Your task to perform on an android device: Open calendar and show me the fourth week of next month Image 0: 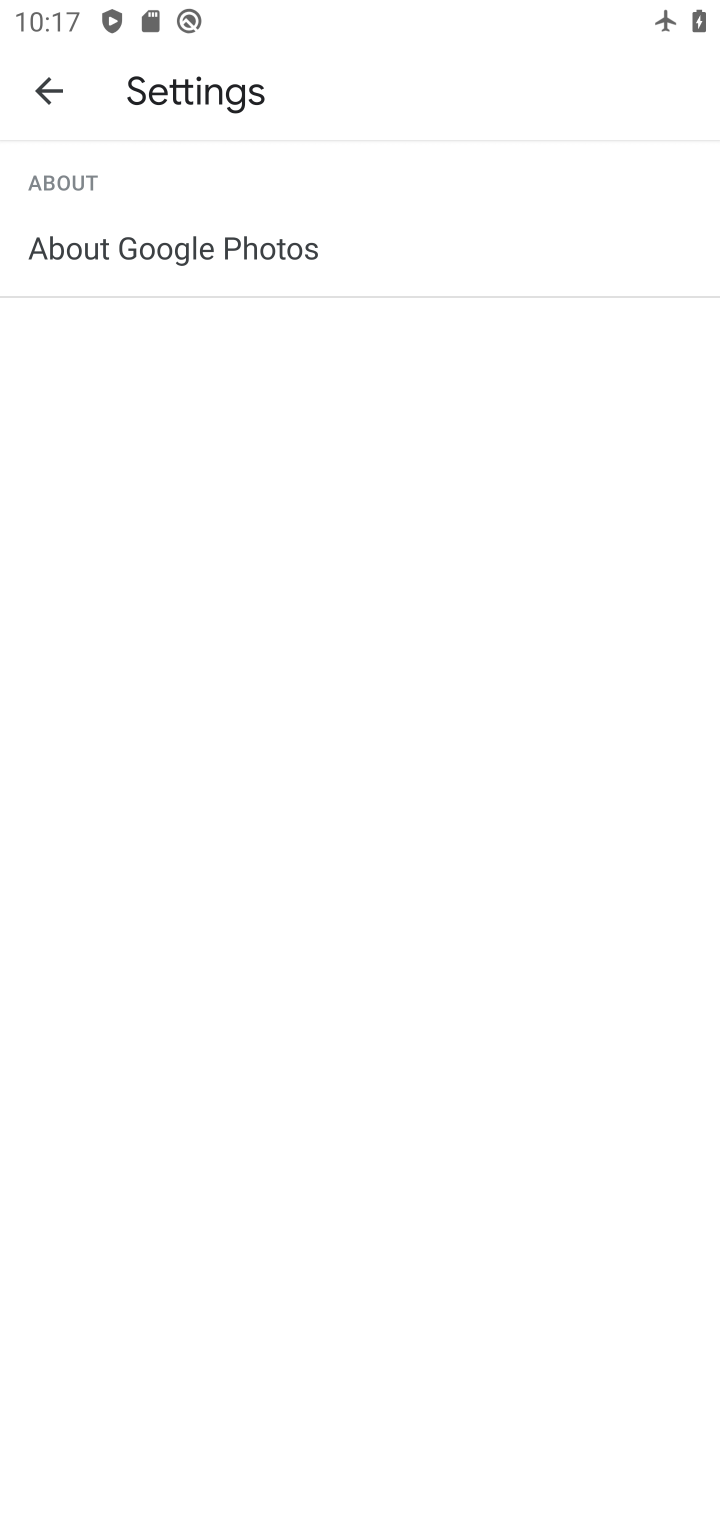
Step 0: press home button
Your task to perform on an android device: Open calendar and show me the fourth week of next month Image 1: 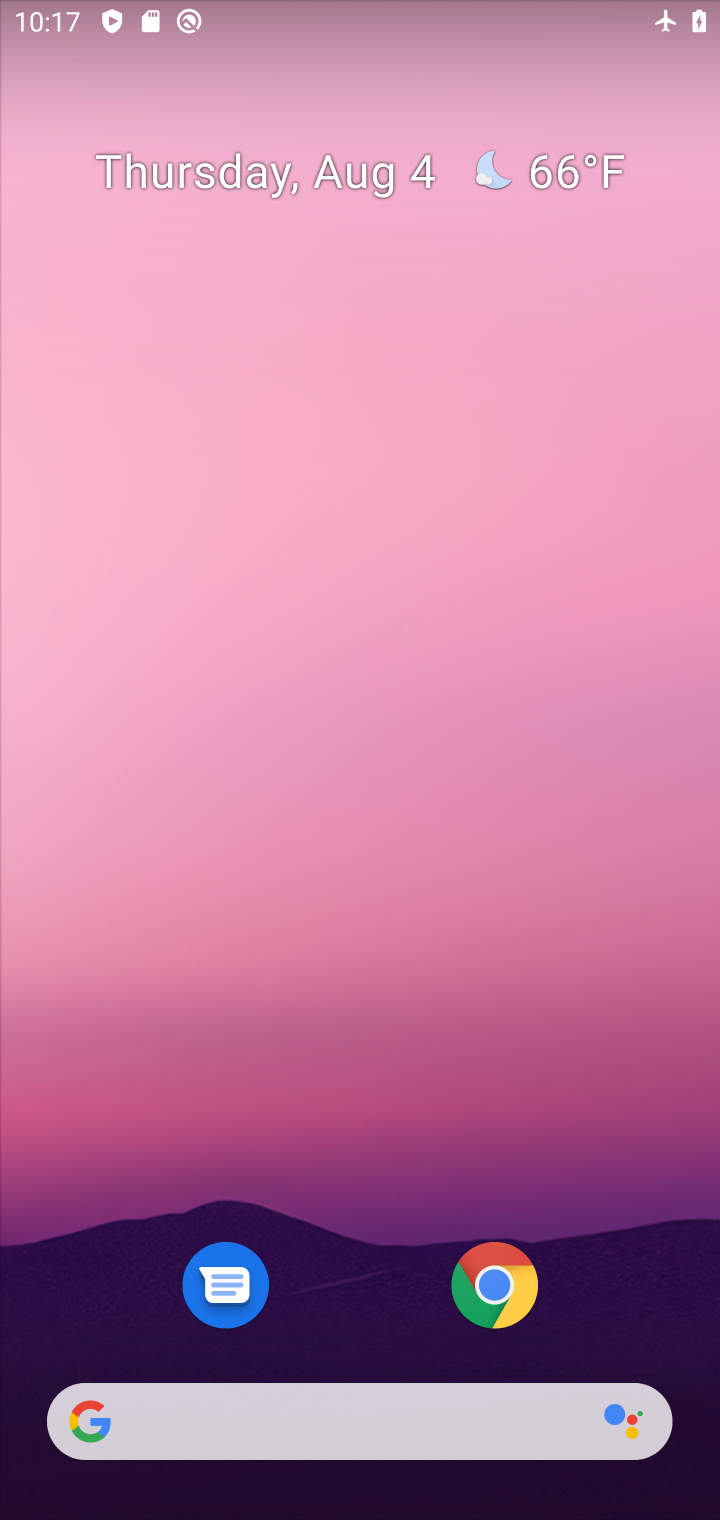
Step 1: drag from (341, 1276) to (434, 98)
Your task to perform on an android device: Open calendar and show me the fourth week of next month Image 2: 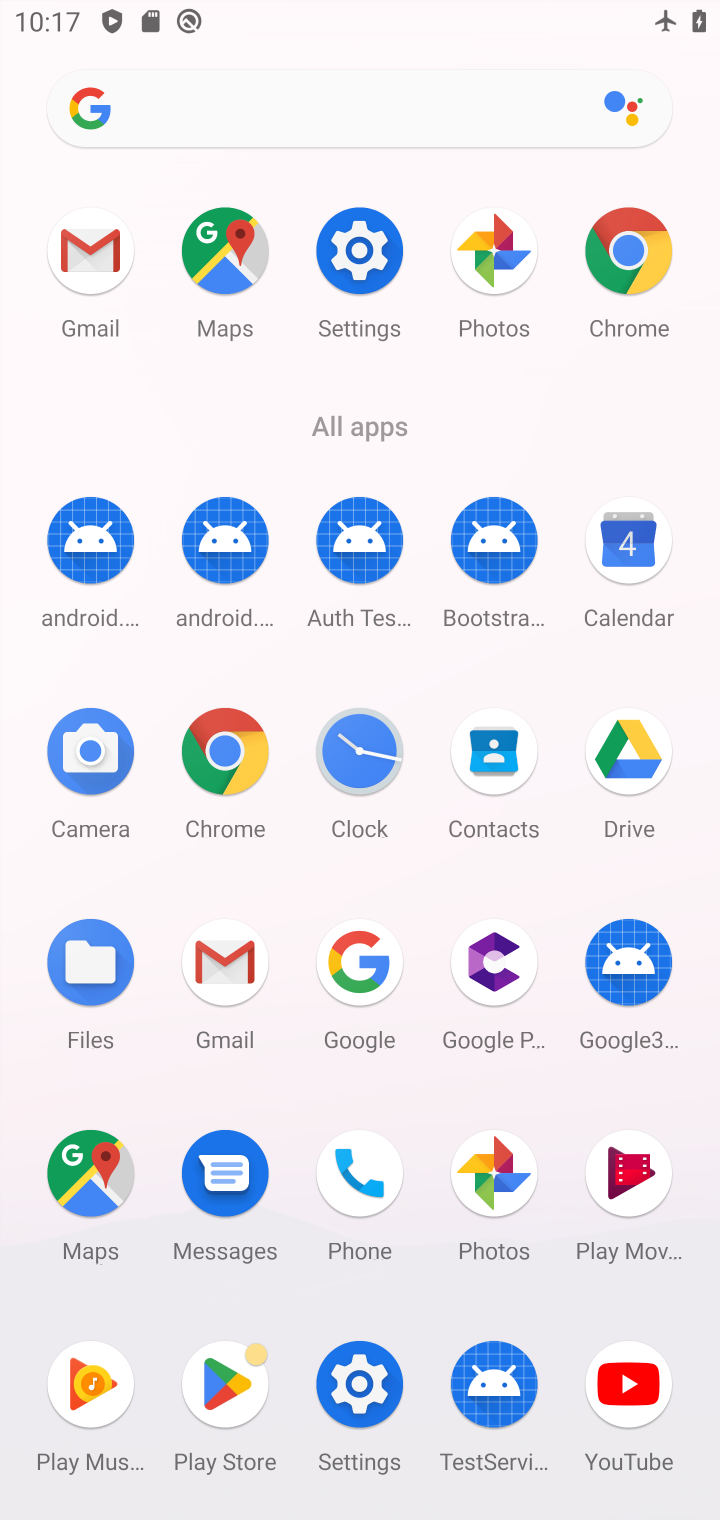
Step 2: click (636, 528)
Your task to perform on an android device: Open calendar and show me the fourth week of next month Image 3: 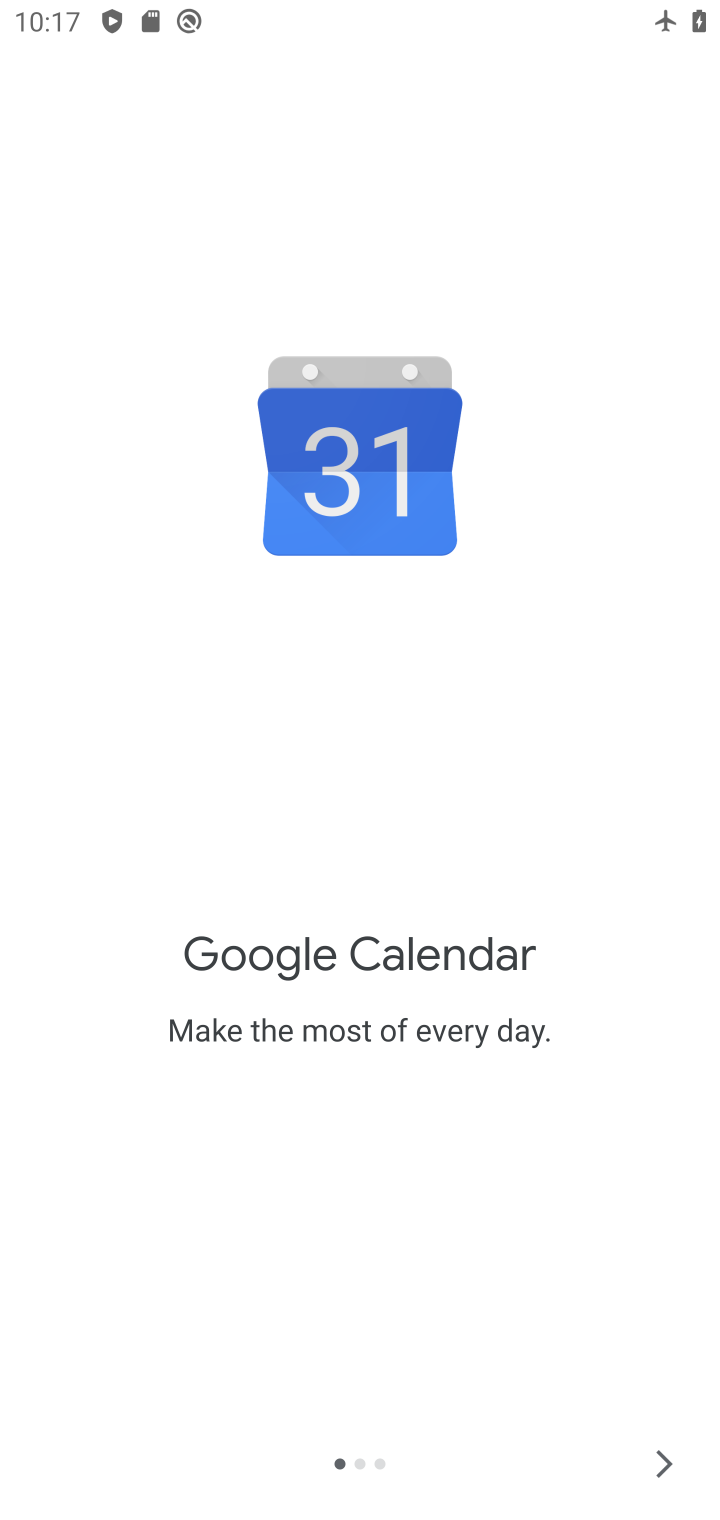
Step 3: click (660, 1478)
Your task to perform on an android device: Open calendar and show me the fourth week of next month Image 4: 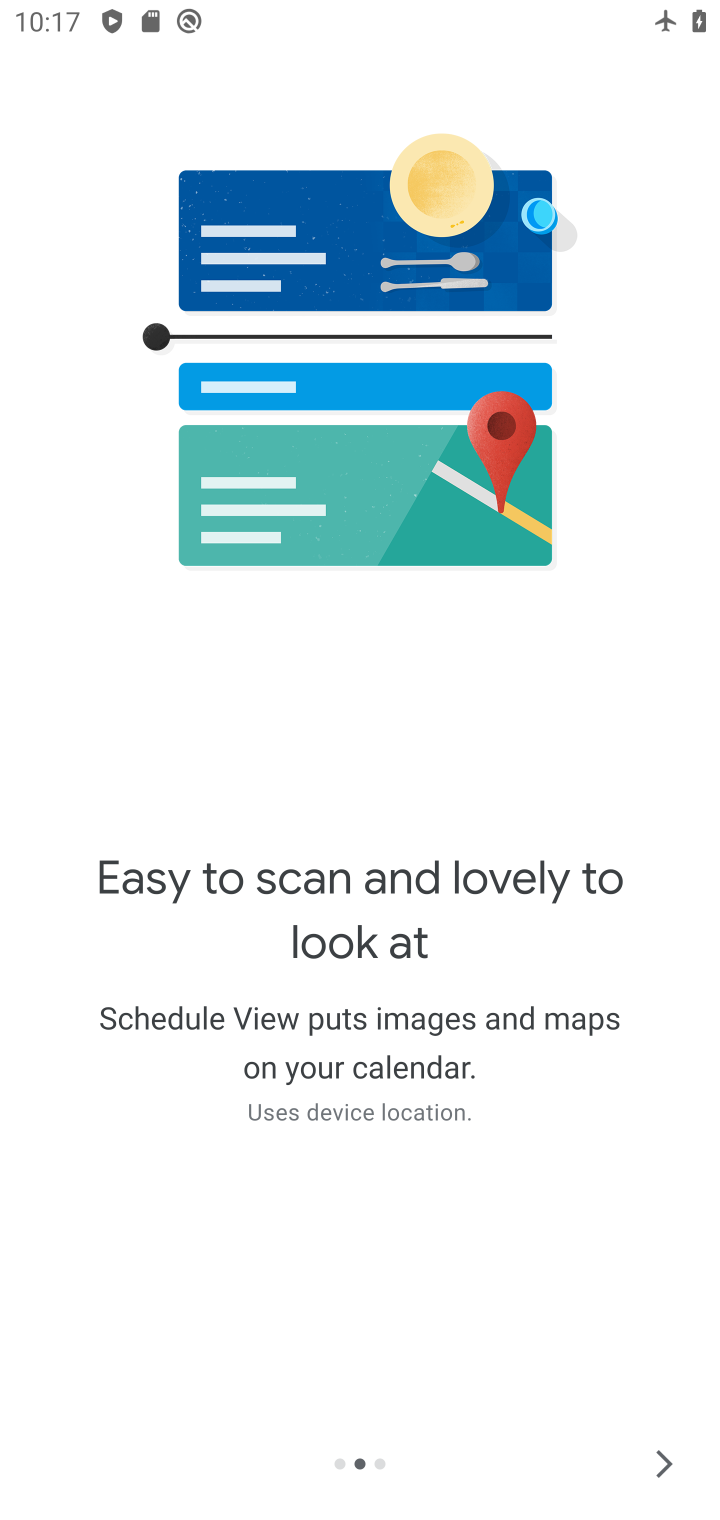
Step 4: click (660, 1478)
Your task to perform on an android device: Open calendar and show me the fourth week of next month Image 5: 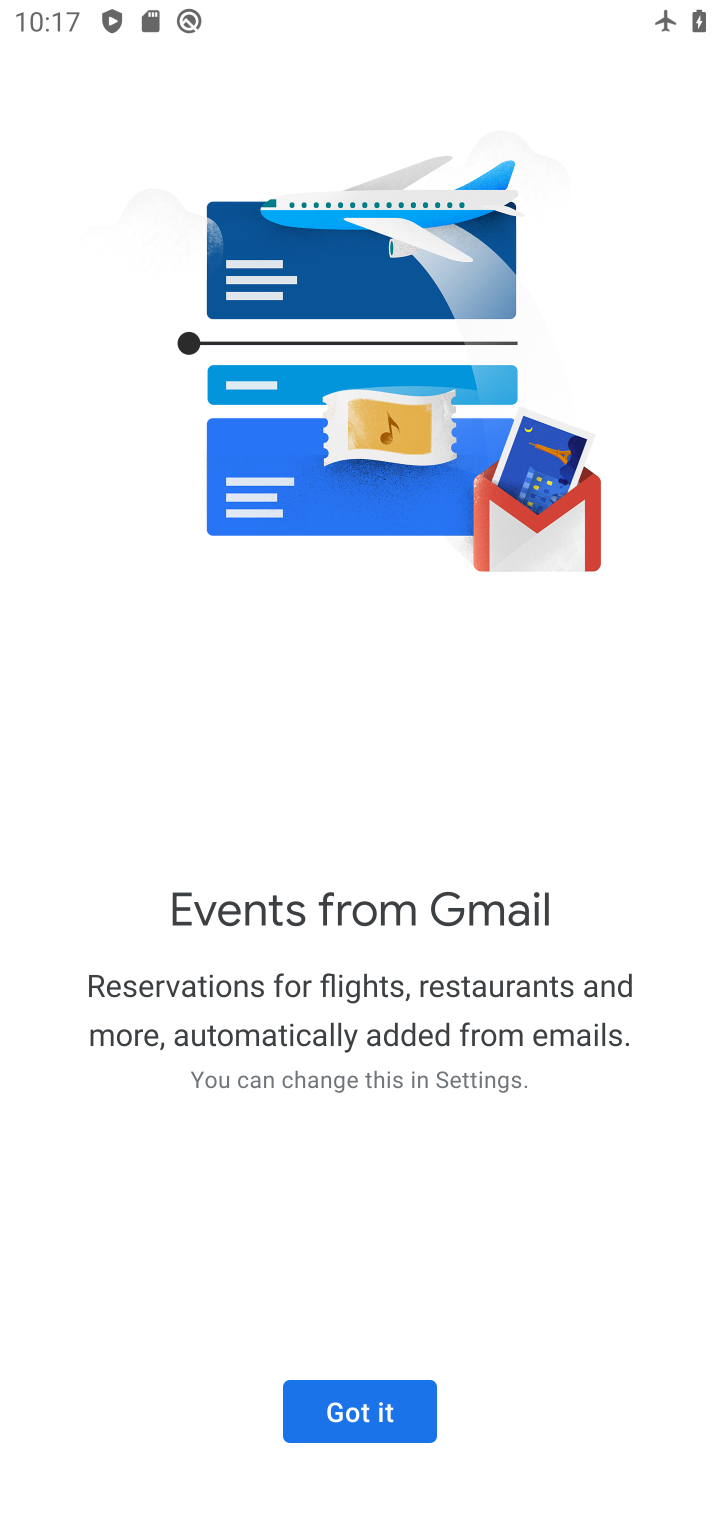
Step 5: click (354, 1388)
Your task to perform on an android device: Open calendar and show me the fourth week of next month Image 6: 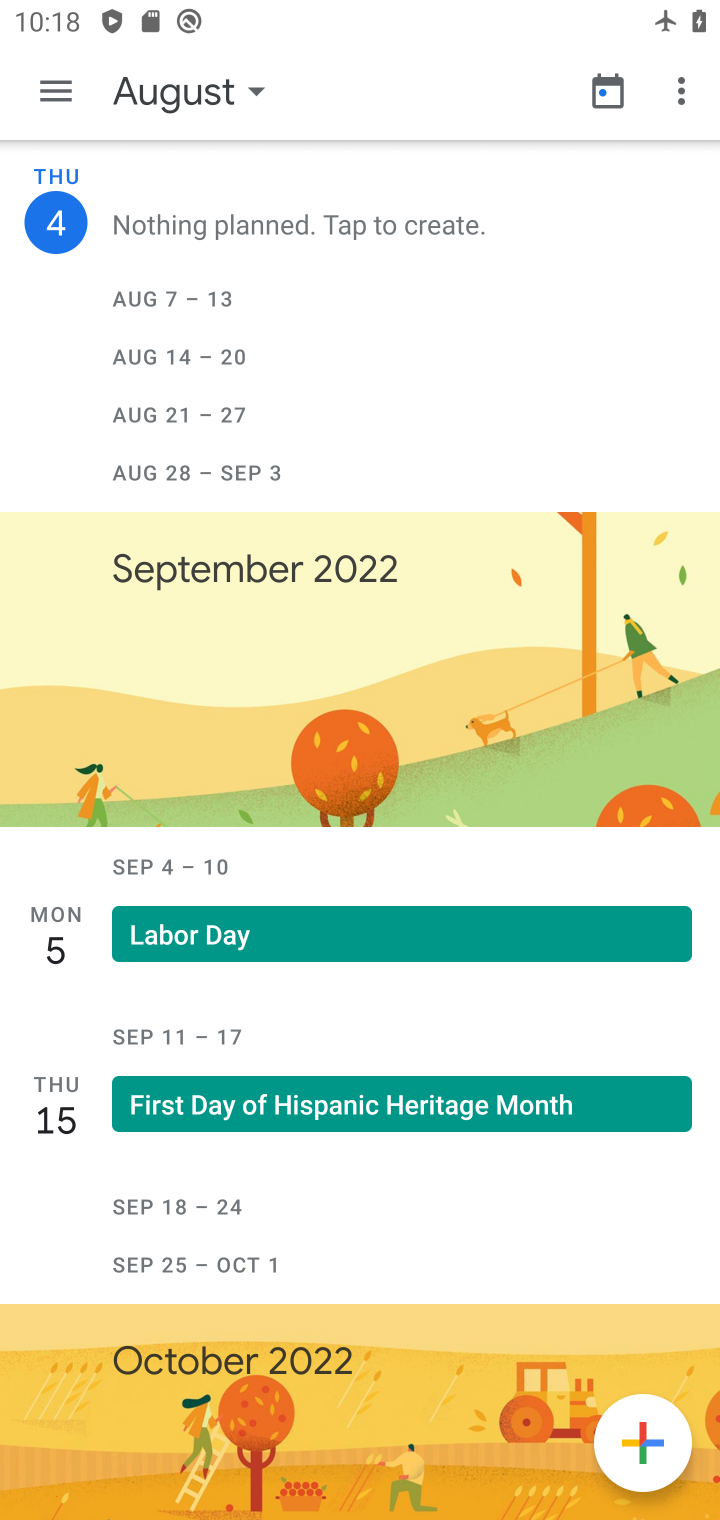
Step 6: press home button
Your task to perform on an android device: Open calendar and show me the fourth week of next month Image 7: 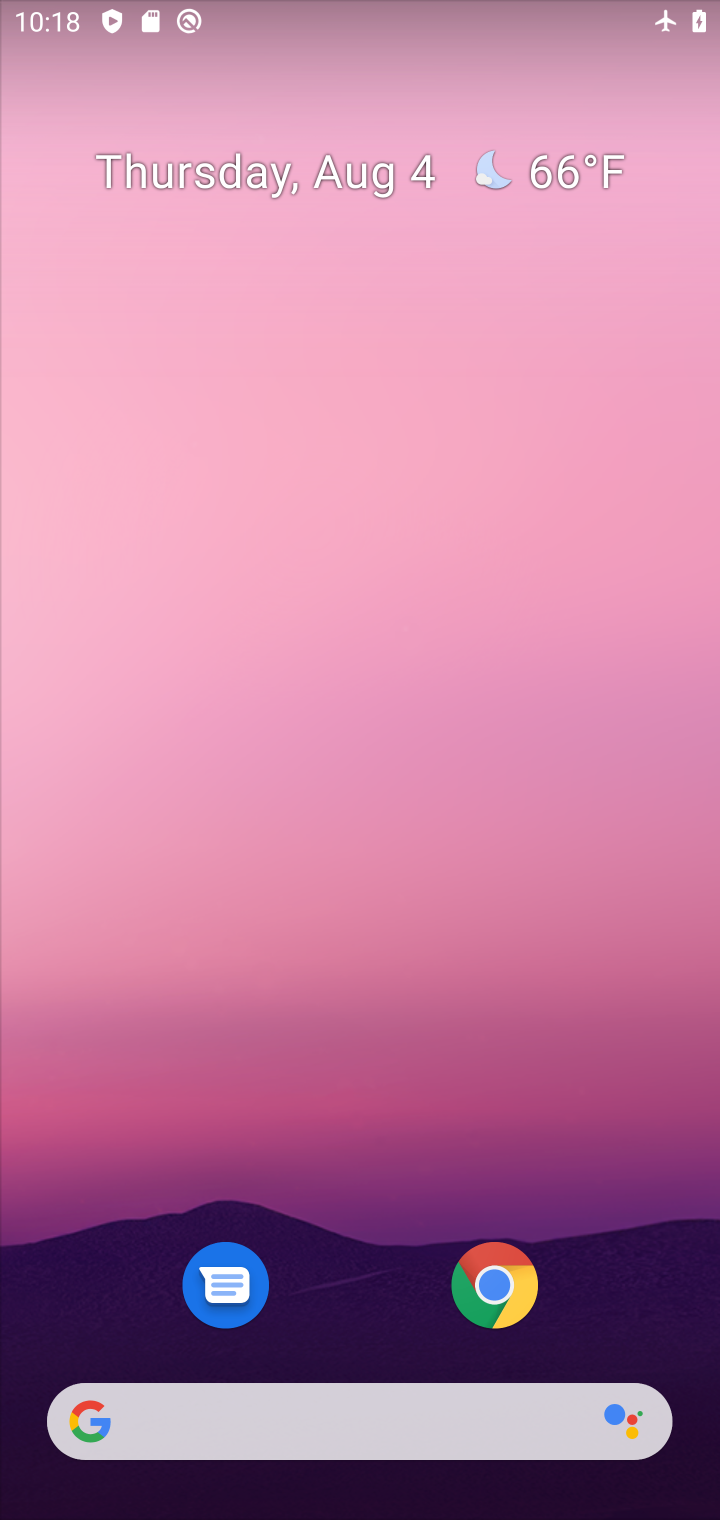
Step 7: drag from (326, 1329) to (290, 18)
Your task to perform on an android device: Open calendar and show me the fourth week of next month Image 8: 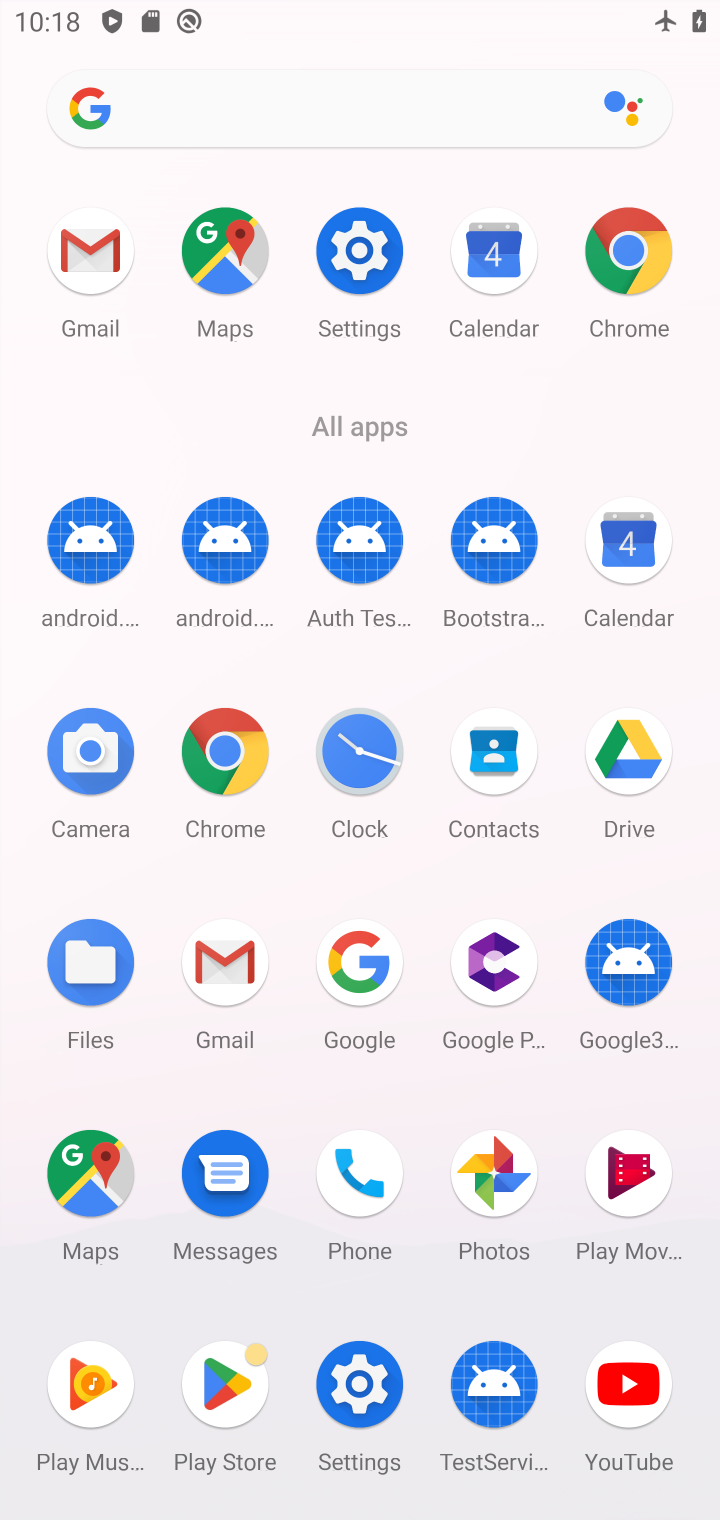
Step 8: drag from (427, 414) to (385, 27)
Your task to perform on an android device: Open calendar and show me the fourth week of next month Image 9: 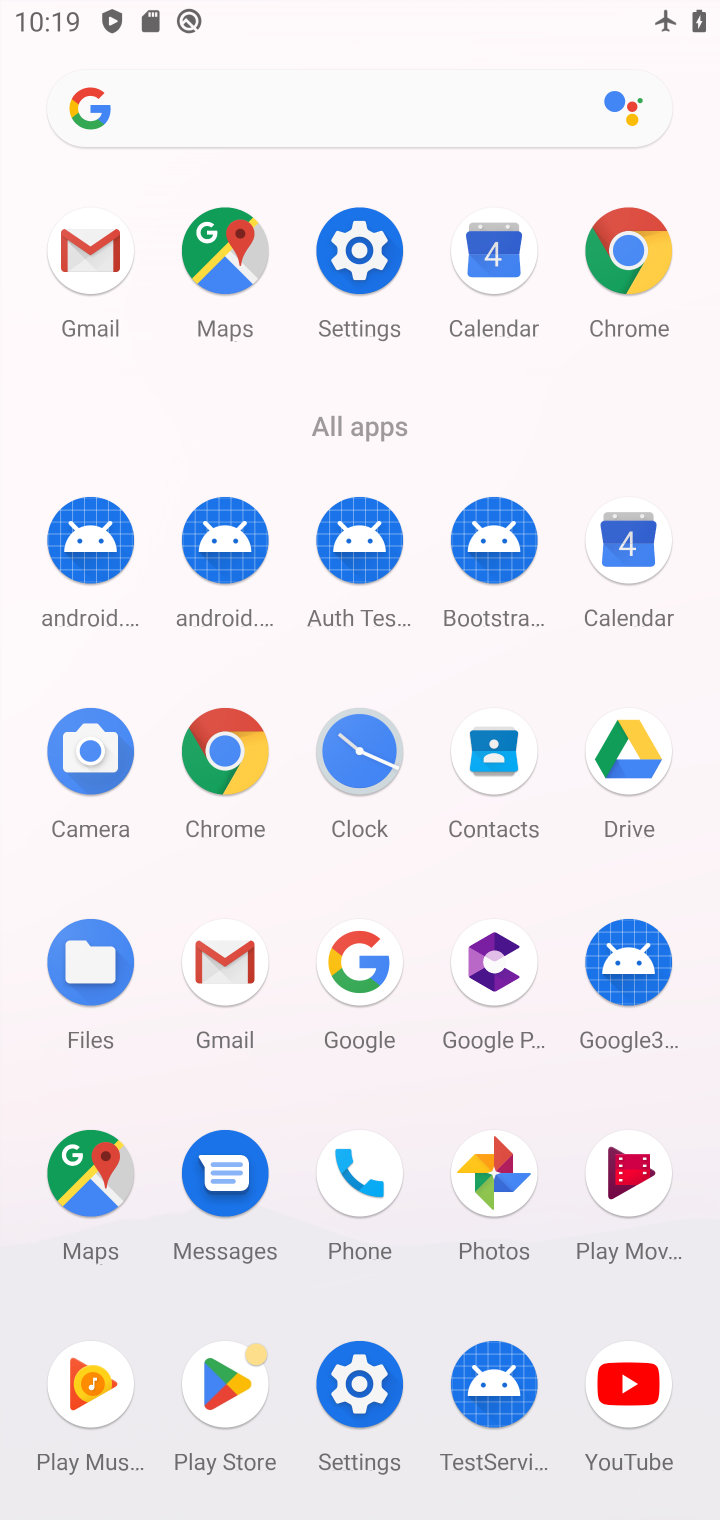
Step 9: click (504, 263)
Your task to perform on an android device: Open calendar and show me the fourth week of next month Image 10: 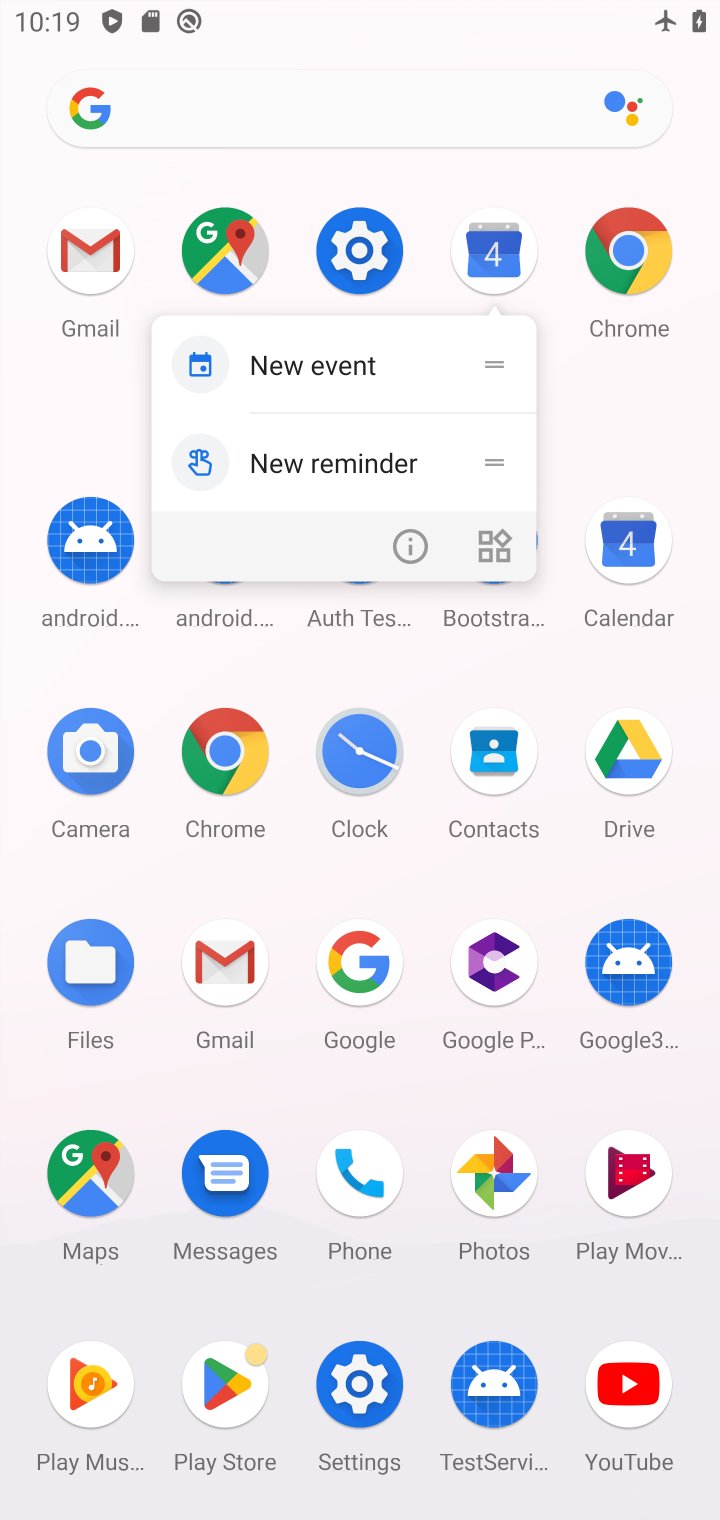
Step 10: click (498, 249)
Your task to perform on an android device: Open calendar and show me the fourth week of next month Image 11: 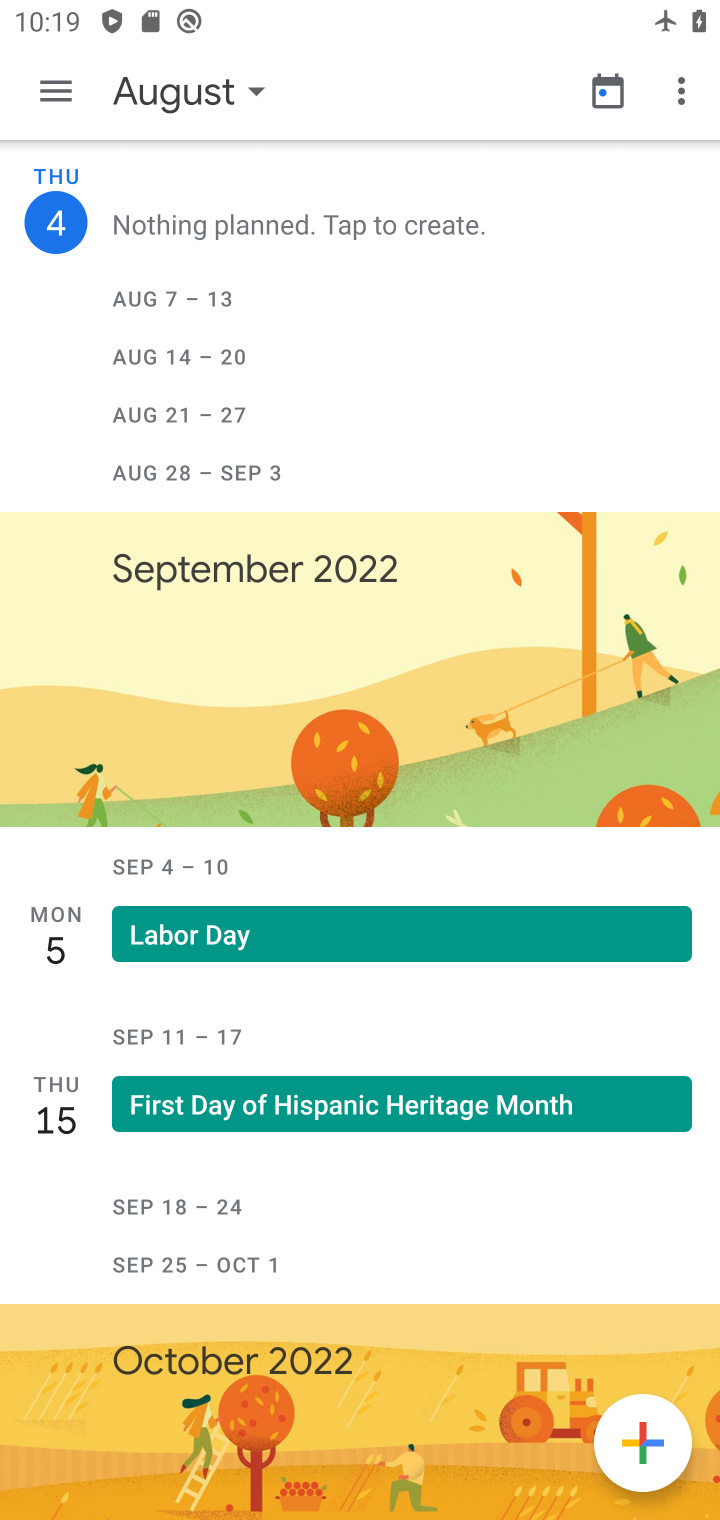
Step 11: click (226, 91)
Your task to perform on an android device: Open calendar and show me the fourth week of next month Image 12: 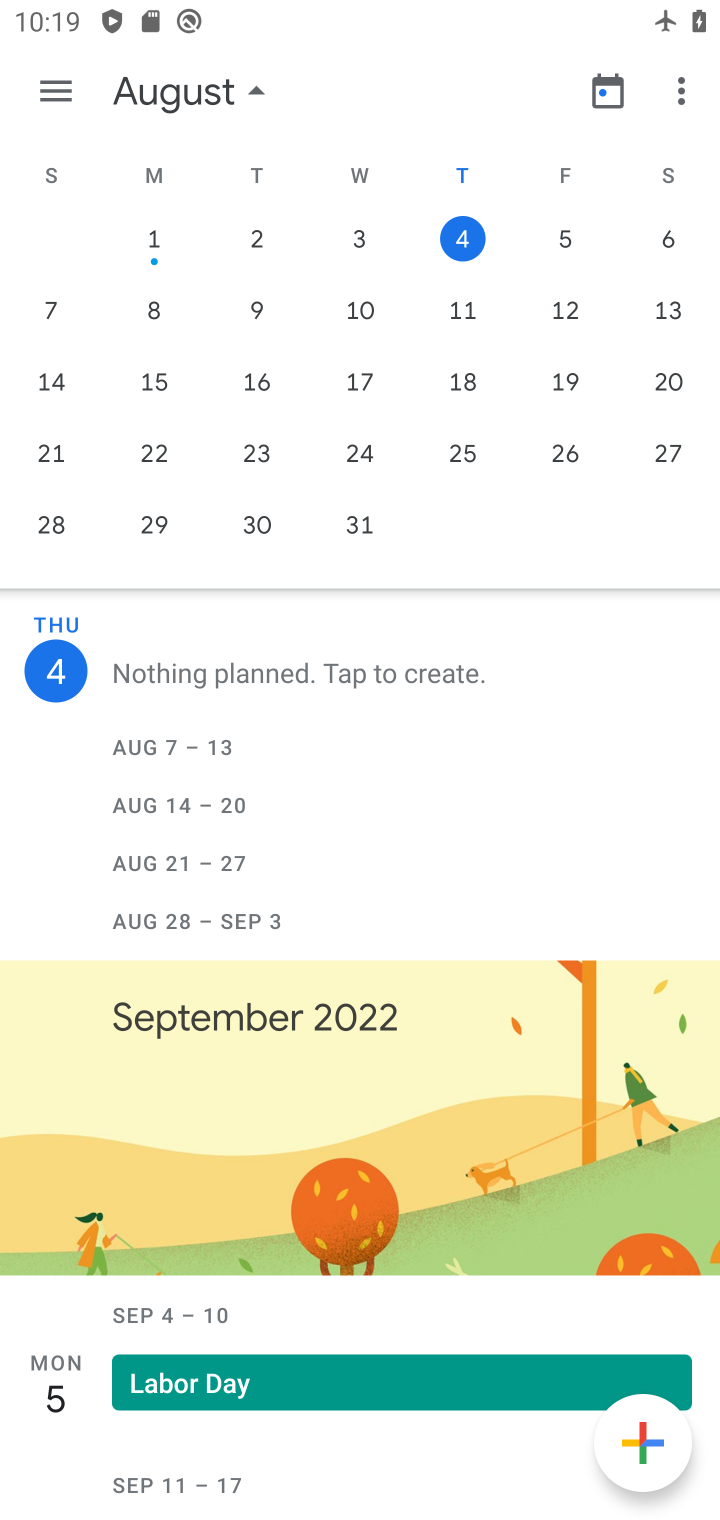
Step 12: drag from (614, 347) to (54, 329)
Your task to perform on an android device: Open calendar and show me the fourth week of next month Image 13: 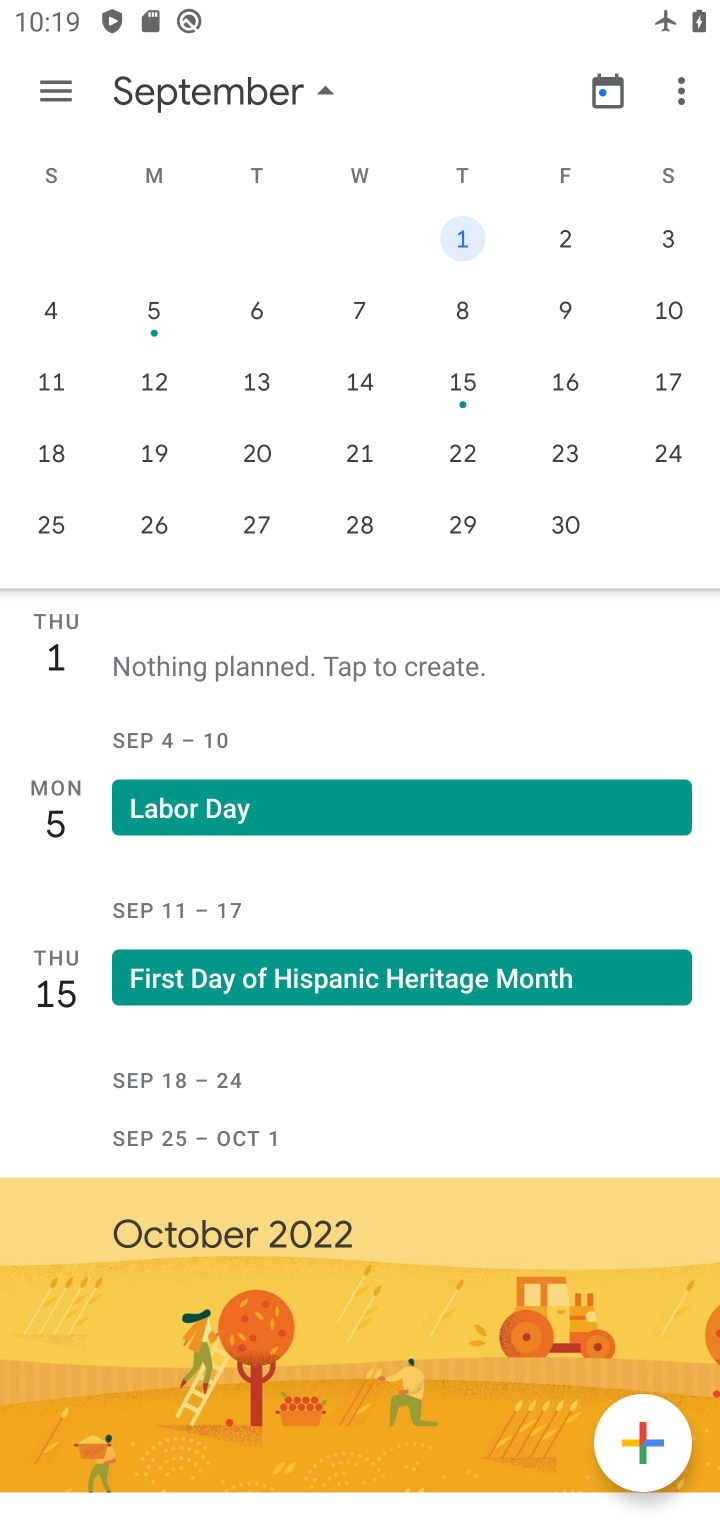
Step 13: click (161, 319)
Your task to perform on an android device: Open calendar and show me the fourth week of next month Image 14: 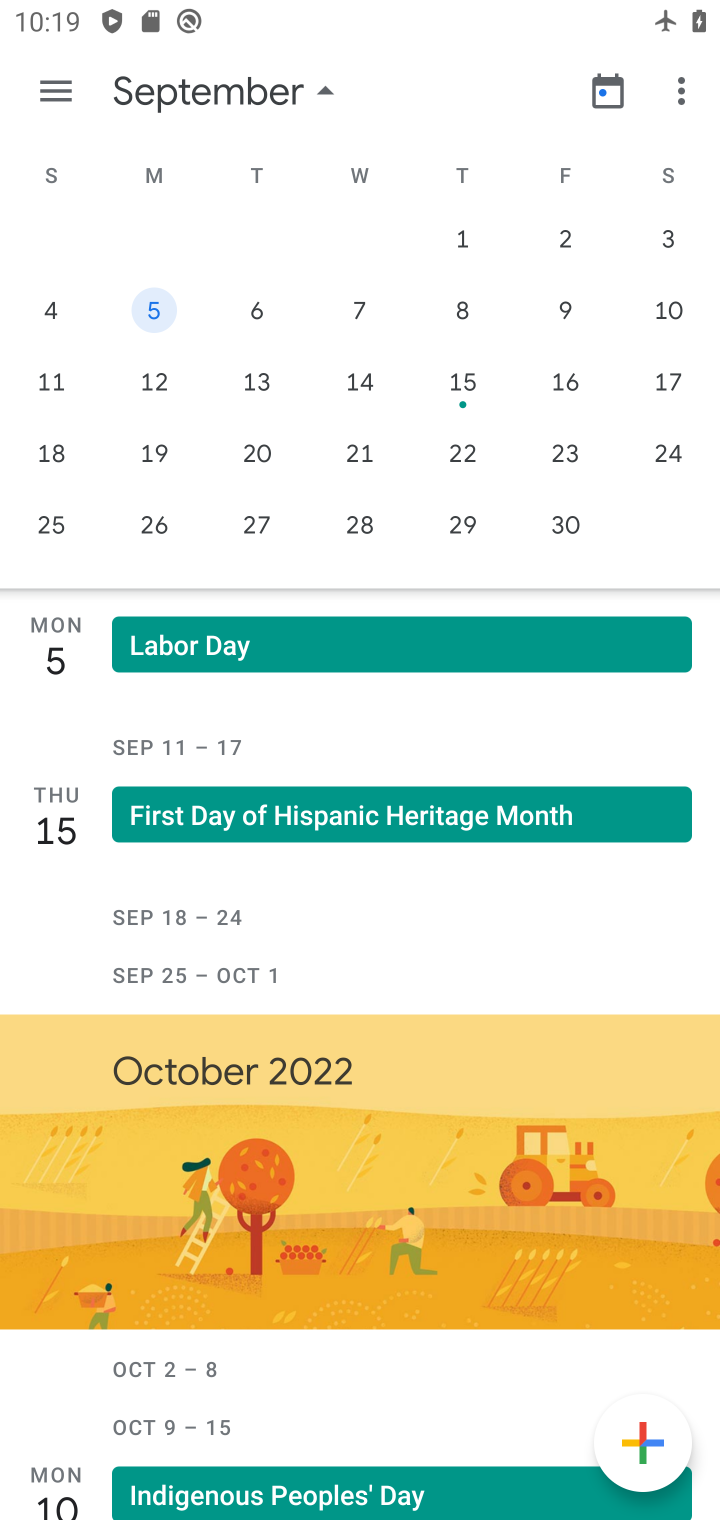
Step 14: click (471, 457)
Your task to perform on an android device: Open calendar and show me the fourth week of next month Image 15: 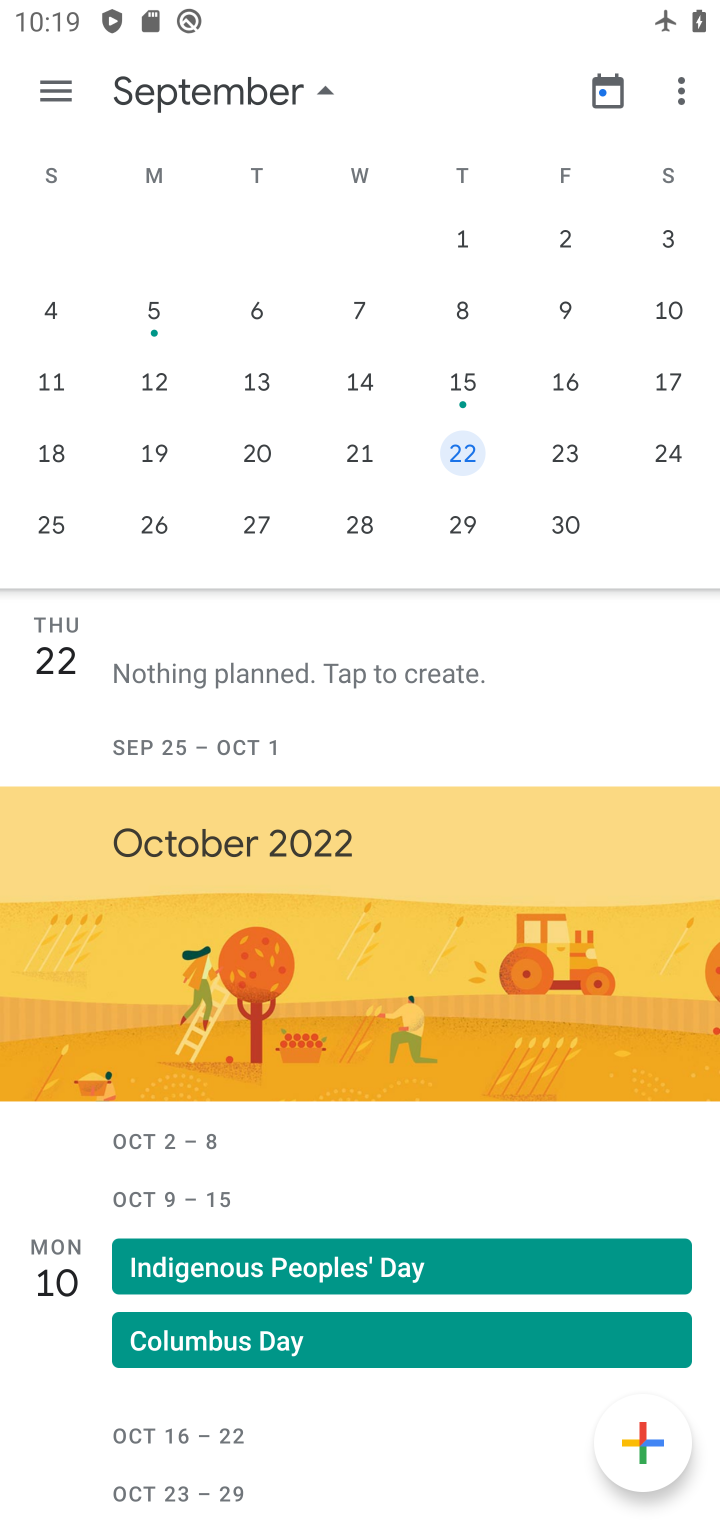
Step 15: task complete